Your task to perform on an android device: Open accessibility settings Image 0: 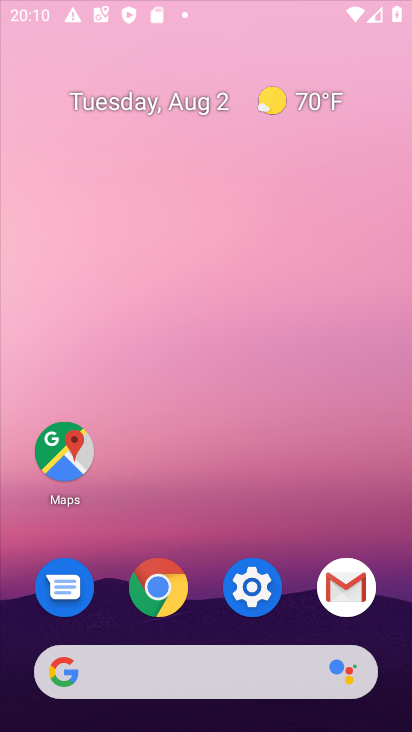
Step 0: press home button
Your task to perform on an android device: Open accessibility settings Image 1: 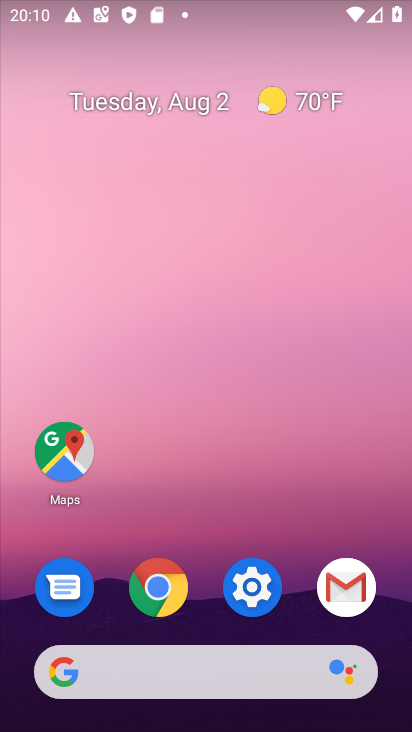
Step 1: click (265, 581)
Your task to perform on an android device: Open accessibility settings Image 2: 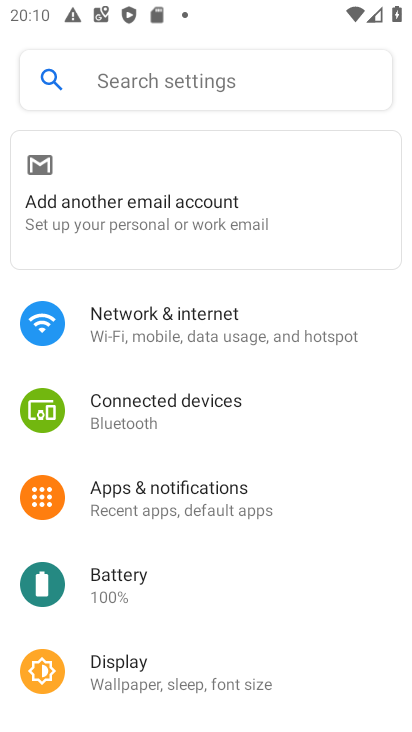
Step 2: click (142, 102)
Your task to perform on an android device: Open accessibility settings Image 3: 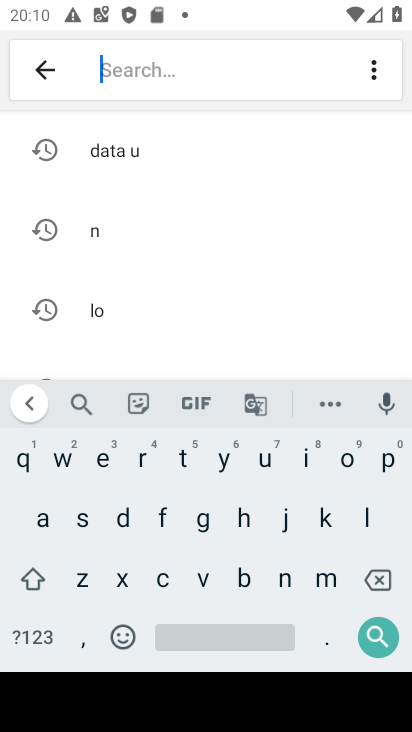
Step 3: click (34, 528)
Your task to perform on an android device: Open accessibility settings Image 4: 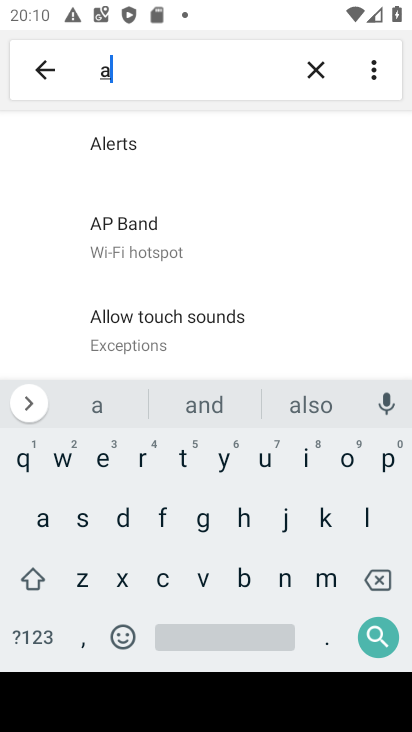
Step 4: click (158, 578)
Your task to perform on an android device: Open accessibility settings Image 5: 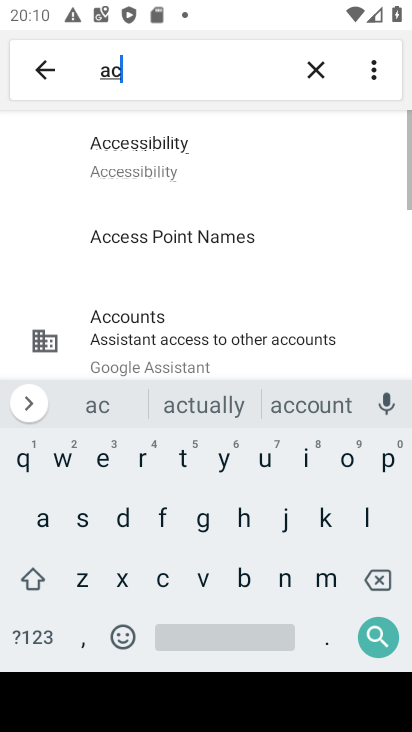
Step 5: click (199, 167)
Your task to perform on an android device: Open accessibility settings Image 6: 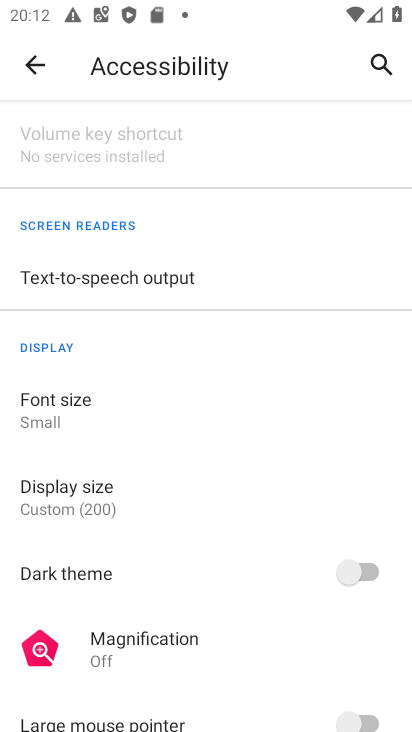
Step 6: task complete